Your task to perform on an android device: Go to location settings Image 0: 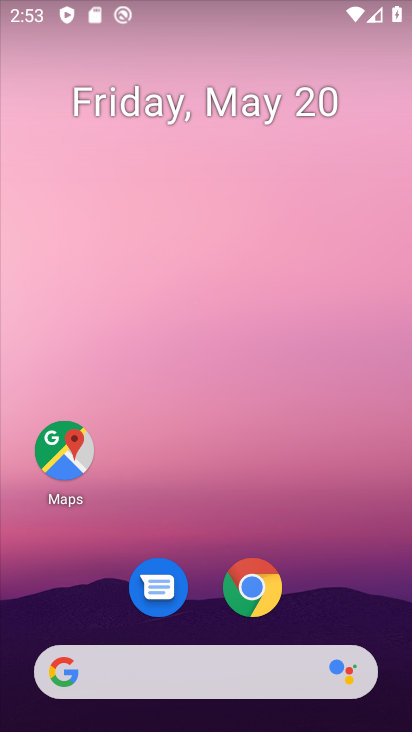
Step 0: drag from (201, 621) to (362, 120)
Your task to perform on an android device: Go to location settings Image 1: 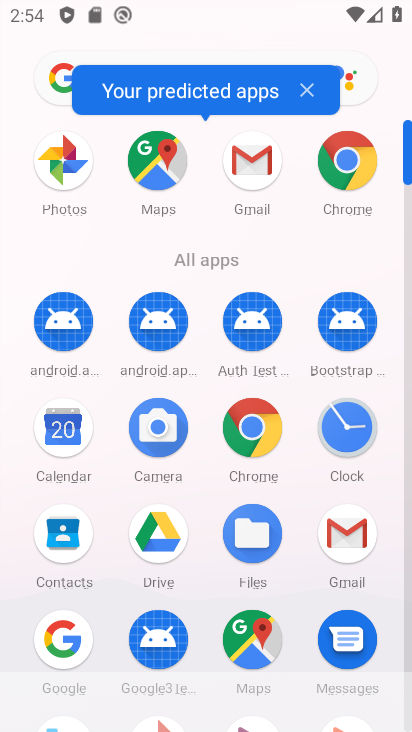
Step 1: drag from (239, 521) to (263, 29)
Your task to perform on an android device: Go to location settings Image 2: 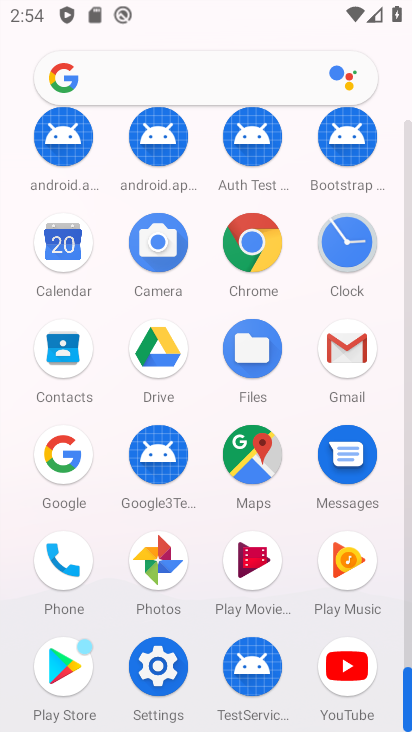
Step 2: drag from (155, 571) to (184, 76)
Your task to perform on an android device: Go to location settings Image 3: 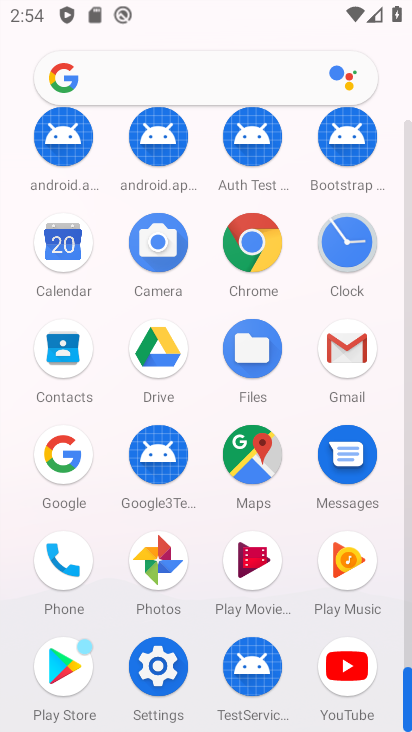
Step 3: click (169, 657)
Your task to perform on an android device: Go to location settings Image 4: 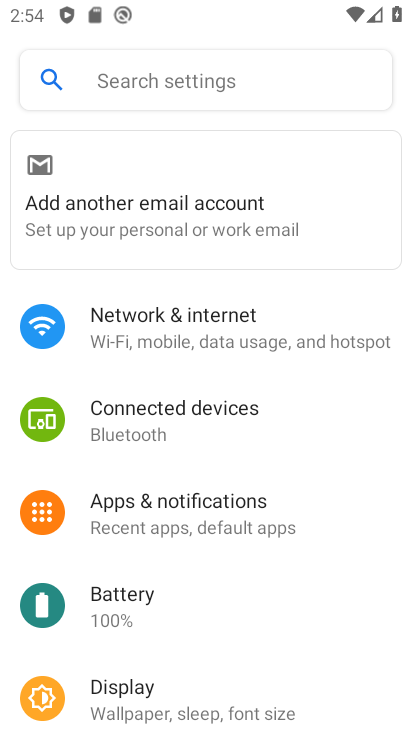
Step 4: drag from (272, 635) to (266, 110)
Your task to perform on an android device: Go to location settings Image 5: 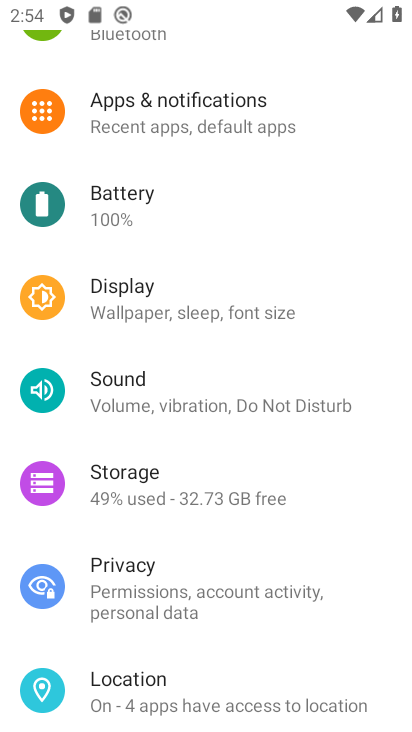
Step 5: click (178, 678)
Your task to perform on an android device: Go to location settings Image 6: 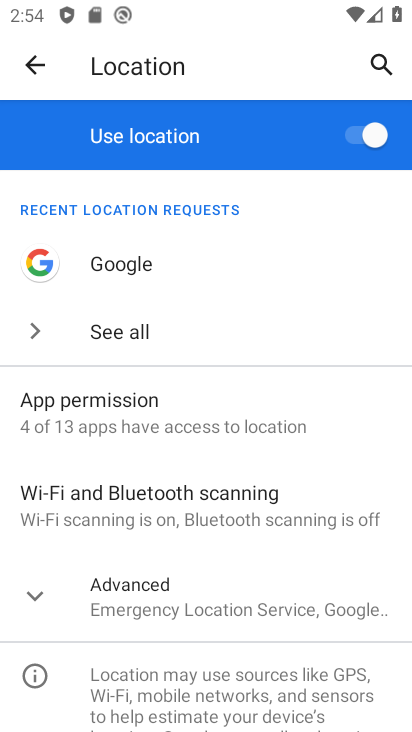
Step 6: task complete